Your task to perform on an android device: all mails in gmail Image 0: 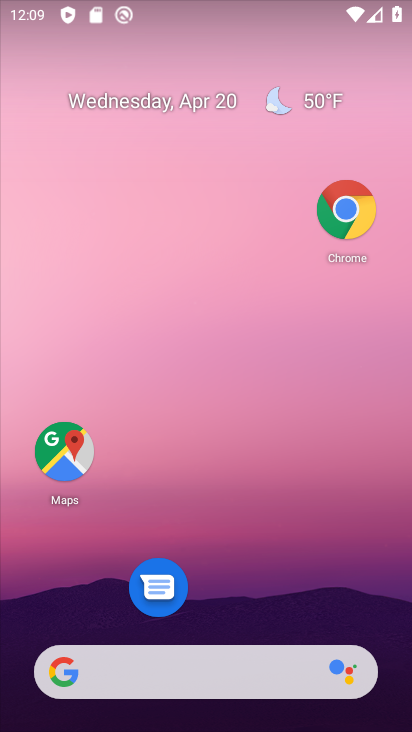
Step 0: drag from (231, 602) to (288, 164)
Your task to perform on an android device: all mails in gmail Image 1: 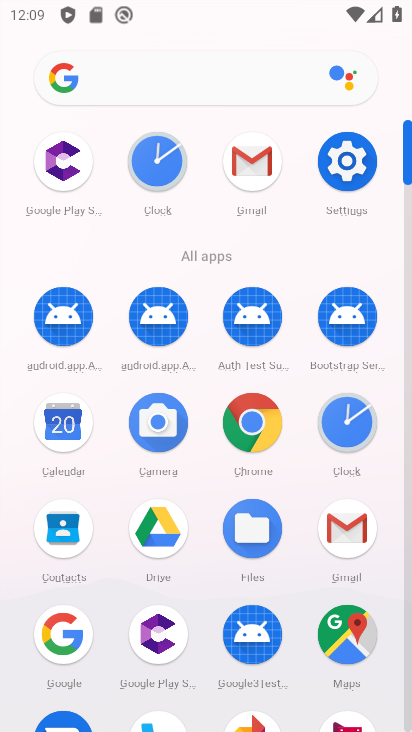
Step 1: click (354, 530)
Your task to perform on an android device: all mails in gmail Image 2: 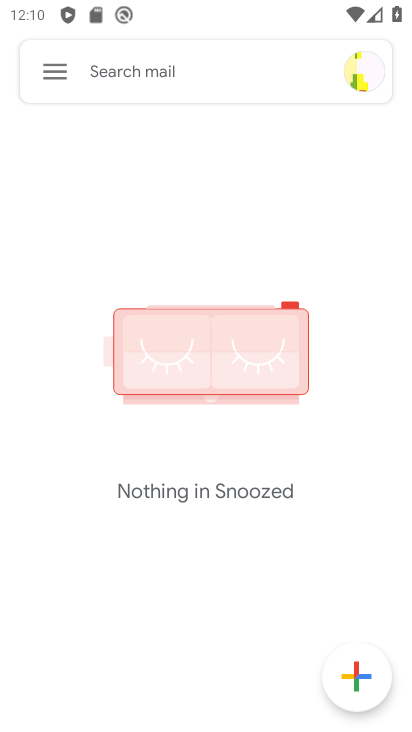
Step 2: click (43, 66)
Your task to perform on an android device: all mails in gmail Image 3: 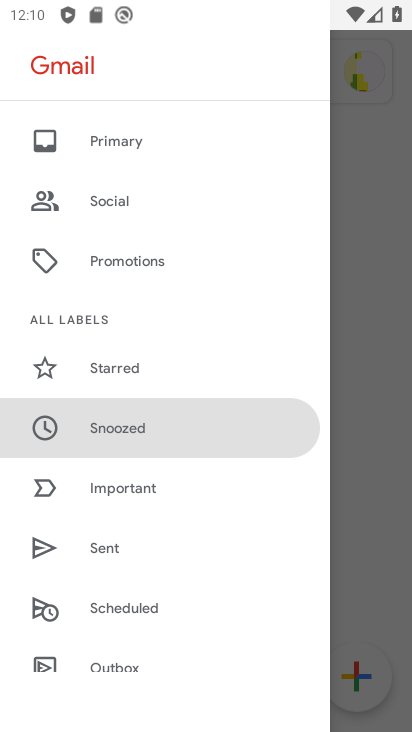
Step 3: drag from (111, 605) to (180, 284)
Your task to perform on an android device: all mails in gmail Image 4: 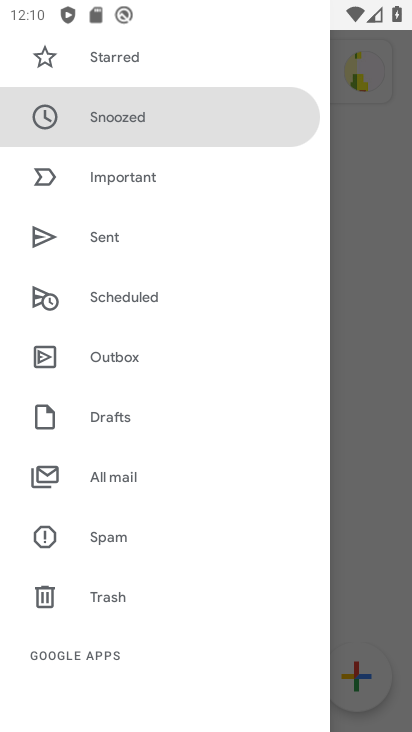
Step 4: click (119, 576)
Your task to perform on an android device: all mails in gmail Image 5: 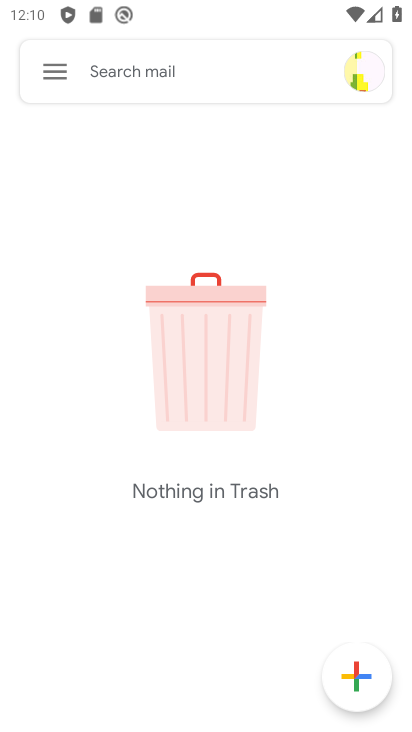
Step 5: click (48, 83)
Your task to perform on an android device: all mails in gmail Image 6: 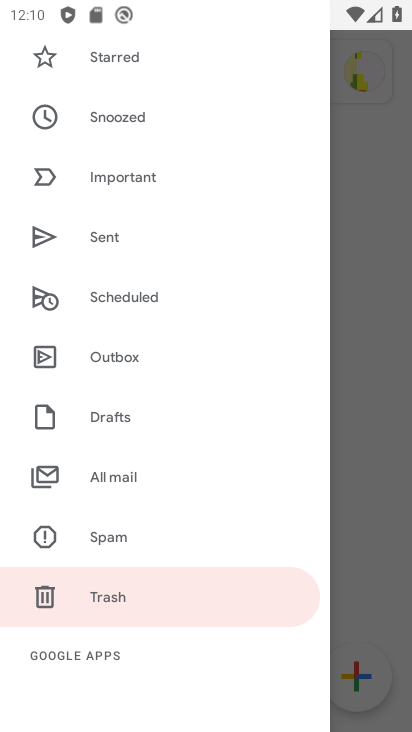
Step 6: click (108, 476)
Your task to perform on an android device: all mails in gmail Image 7: 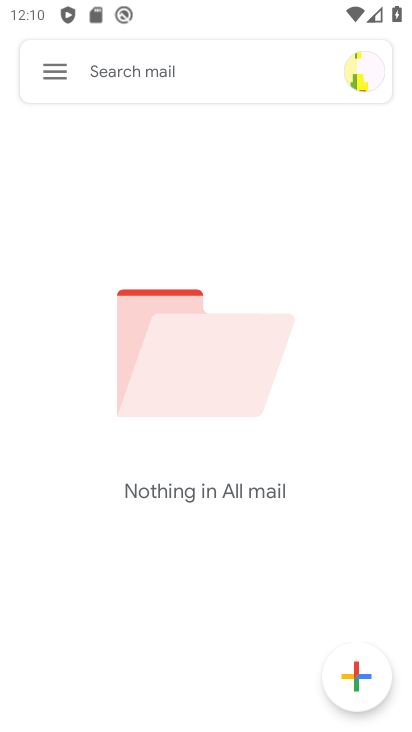
Step 7: task complete